Your task to perform on an android device: turn on airplane mode Image 0: 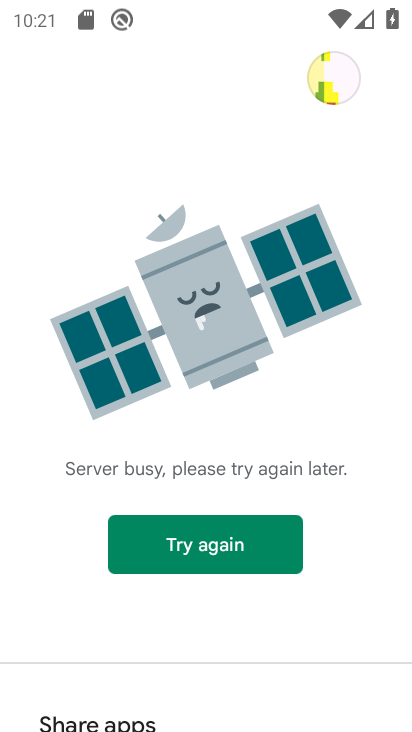
Step 0: press back button
Your task to perform on an android device: turn on airplane mode Image 1: 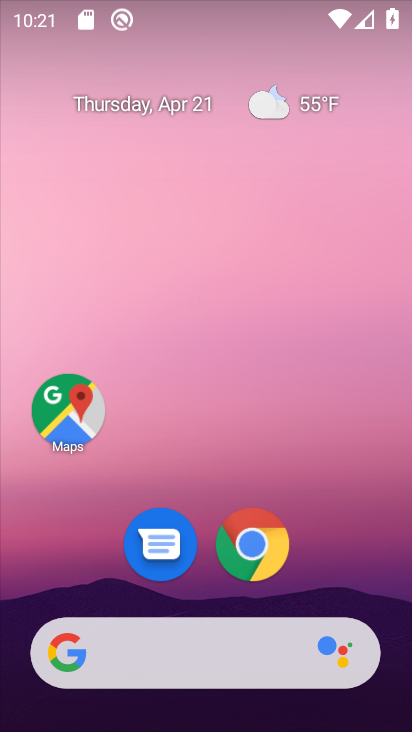
Step 1: drag from (341, 378) to (325, 41)
Your task to perform on an android device: turn on airplane mode Image 2: 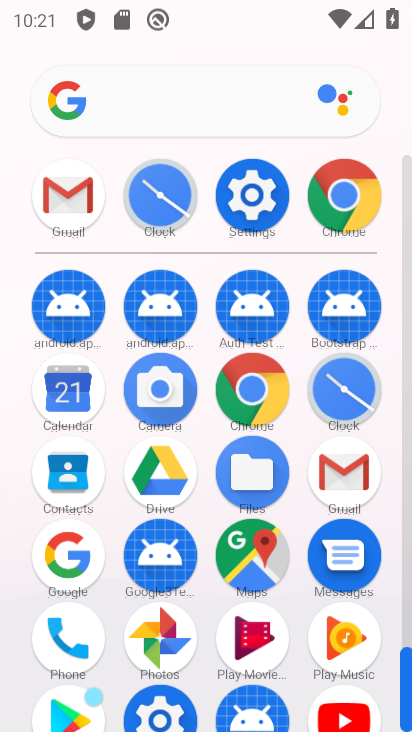
Step 2: click (248, 191)
Your task to perform on an android device: turn on airplane mode Image 3: 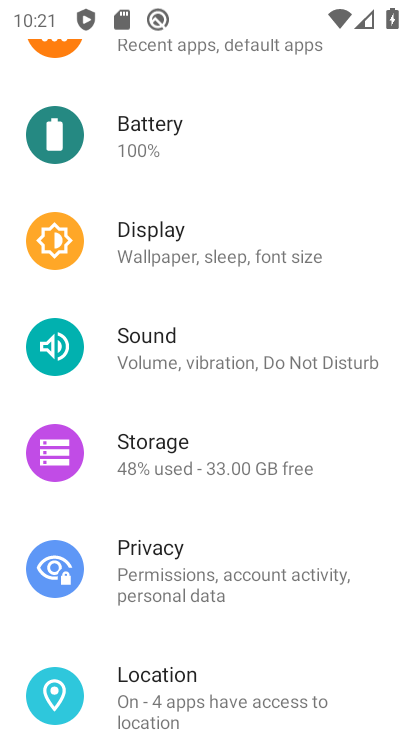
Step 3: drag from (262, 127) to (297, 523)
Your task to perform on an android device: turn on airplane mode Image 4: 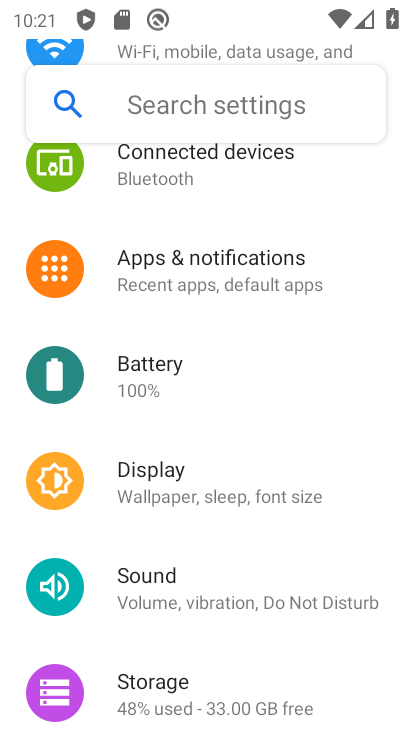
Step 4: drag from (260, 205) to (269, 608)
Your task to perform on an android device: turn on airplane mode Image 5: 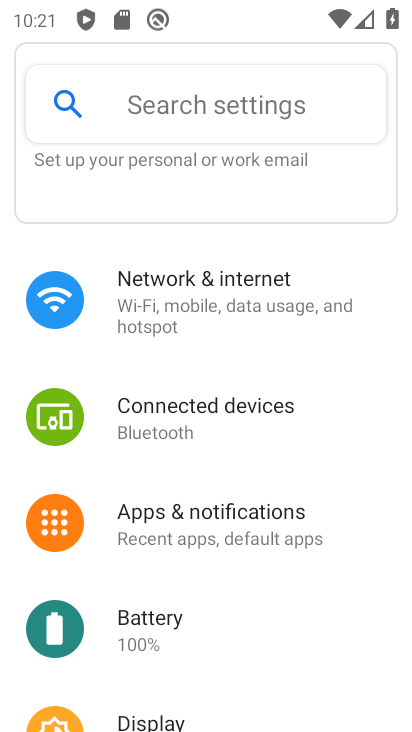
Step 5: click (217, 303)
Your task to perform on an android device: turn on airplane mode Image 6: 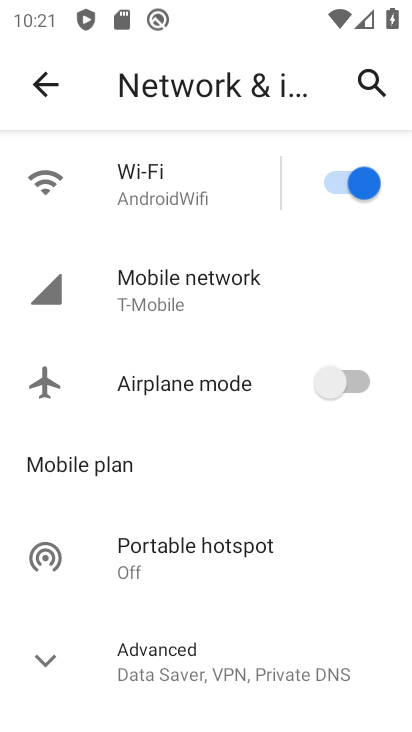
Step 6: click (333, 383)
Your task to perform on an android device: turn on airplane mode Image 7: 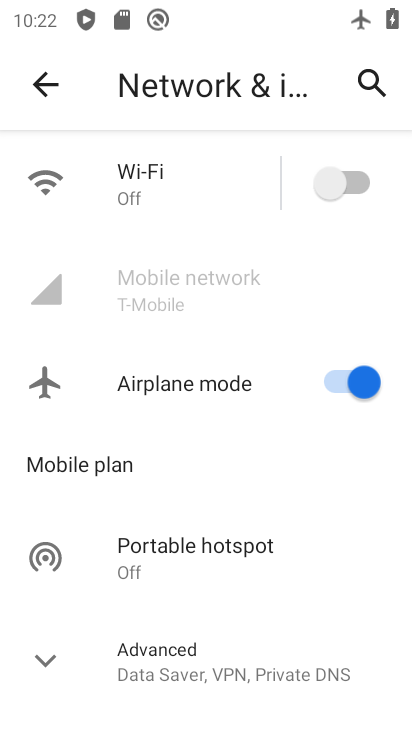
Step 7: task complete